Your task to perform on an android device: Search for Mexican restaurants on Maps Image 0: 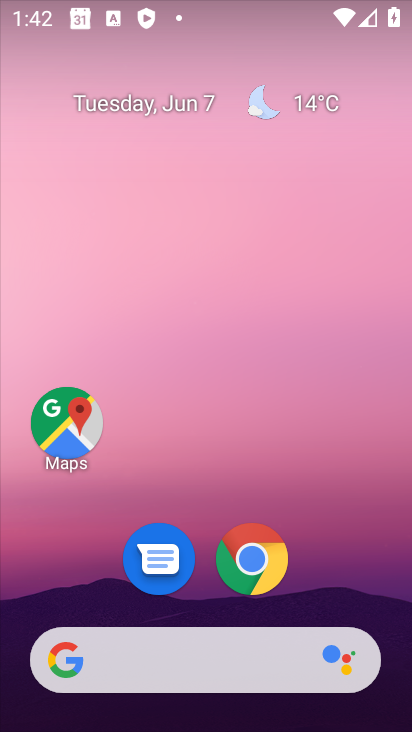
Step 0: click (61, 452)
Your task to perform on an android device: Search for Mexican restaurants on Maps Image 1: 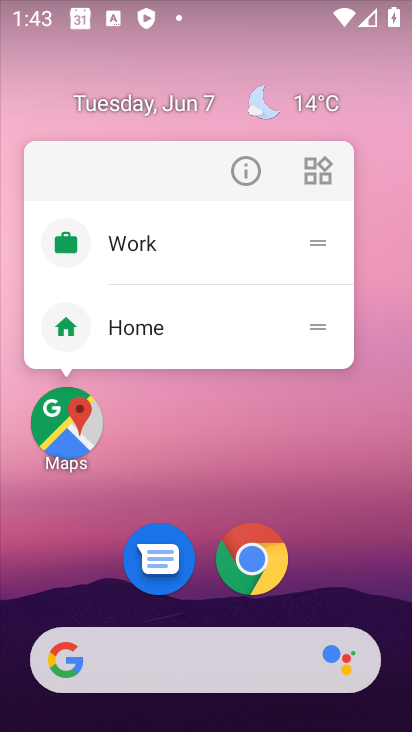
Step 1: click (59, 445)
Your task to perform on an android device: Search for Mexican restaurants on Maps Image 2: 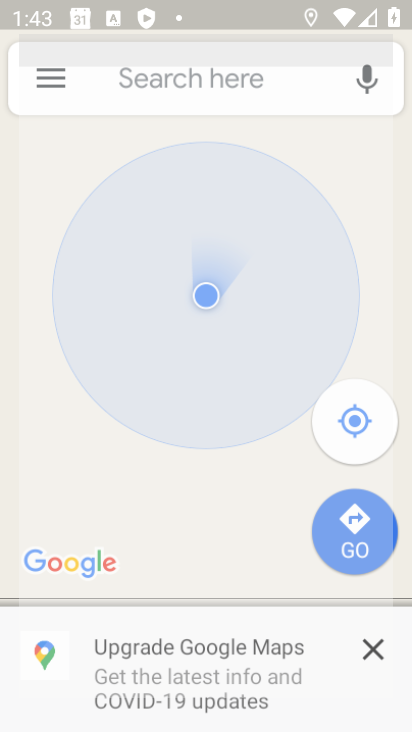
Step 2: click (369, 636)
Your task to perform on an android device: Search for Mexican restaurants on Maps Image 3: 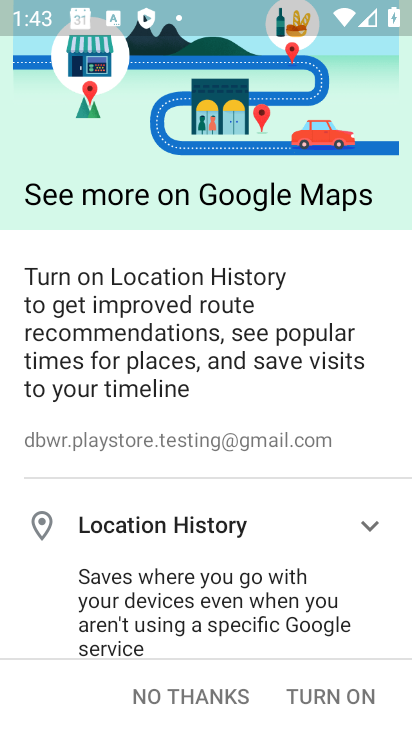
Step 3: click (207, 709)
Your task to perform on an android device: Search for Mexican restaurants on Maps Image 4: 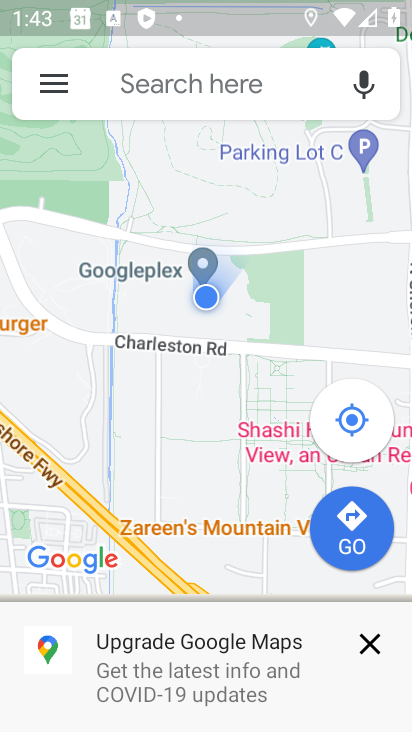
Step 4: click (194, 84)
Your task to perform on an android device: Search for Mexican restaurants on Maps Image 5: 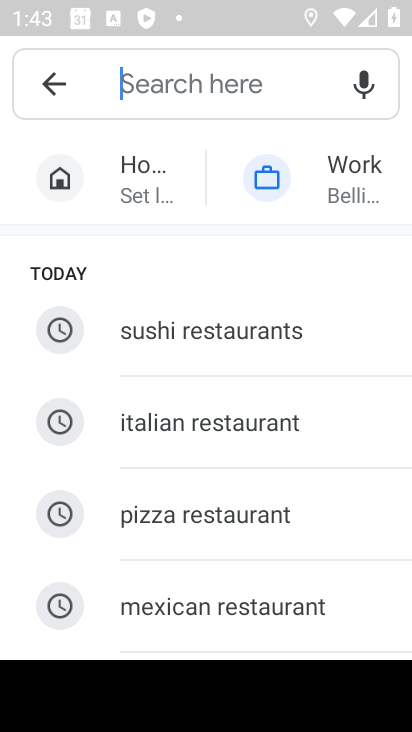
Step 5: click (220, 611)
Your task to perform on an android device: Search for Mexican restaurants on Maps Image 6: 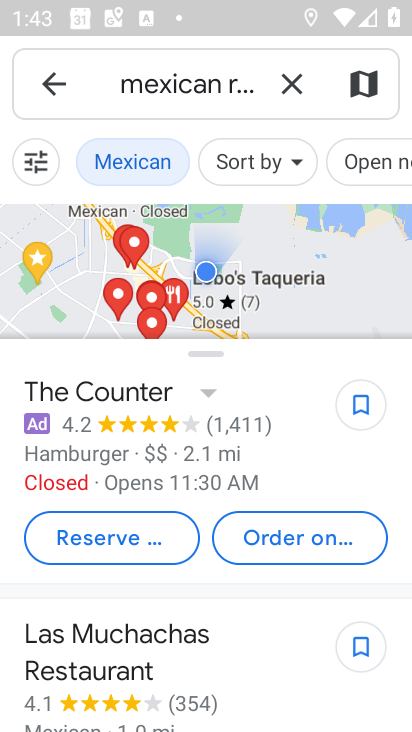
Step 6: task complete